Your task to perform on an android device: Open Google Image 0: 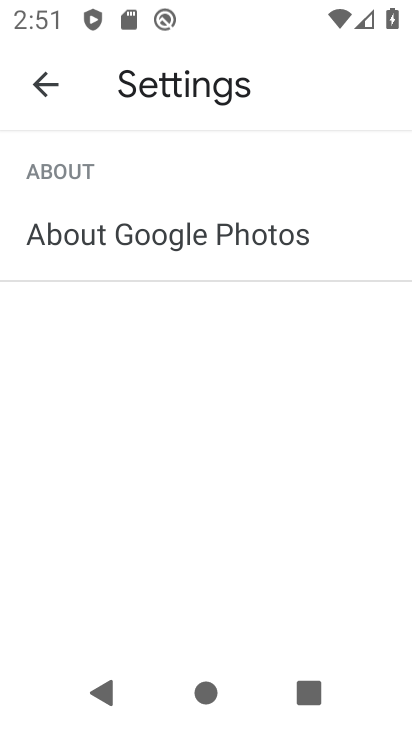
Step 0: press home button
Your task to perform on an android device: Open Google Image 1: 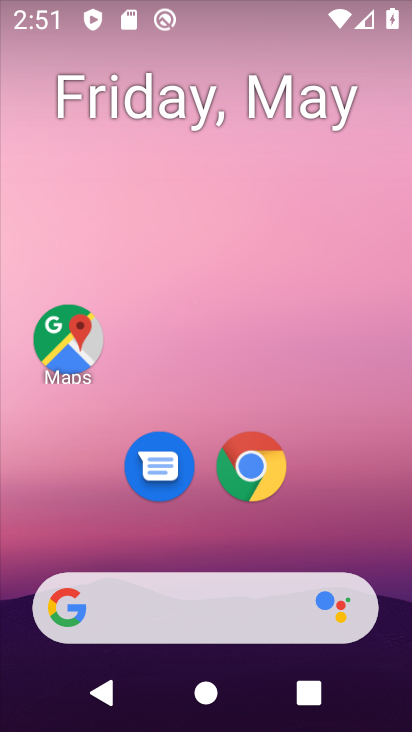
Step 1: click (234, 601)
Your task to perform on an android device: Open Google Image 2: 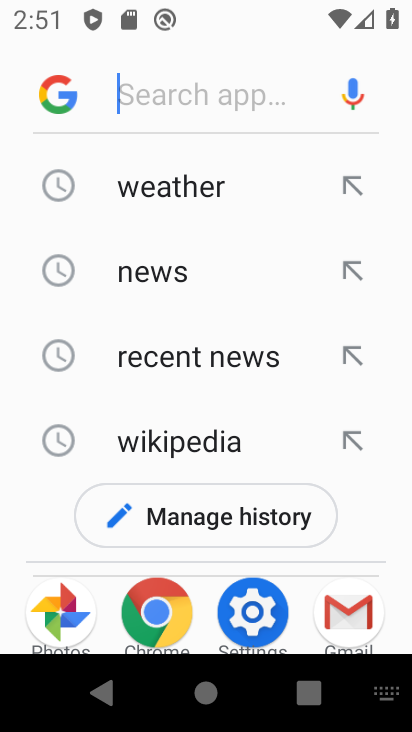
Step 2: type "google"
Your task to perform on an android device: Open Google Image 3: 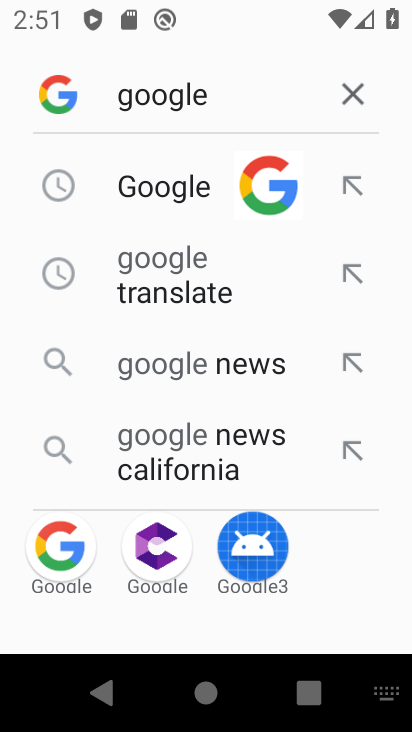
Step 3: click (138, 196)
Your task to perform on an android device: Open Google Image 4: 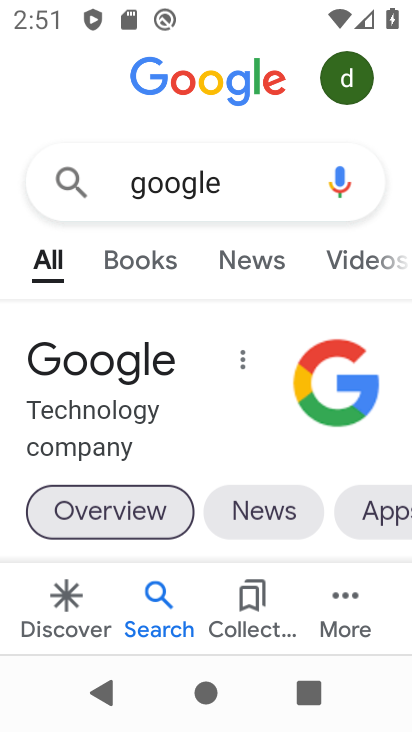
Step 4: drag from (200, 407) to (200, 38)
Your task to perform on an android device: Open Google Image 5: 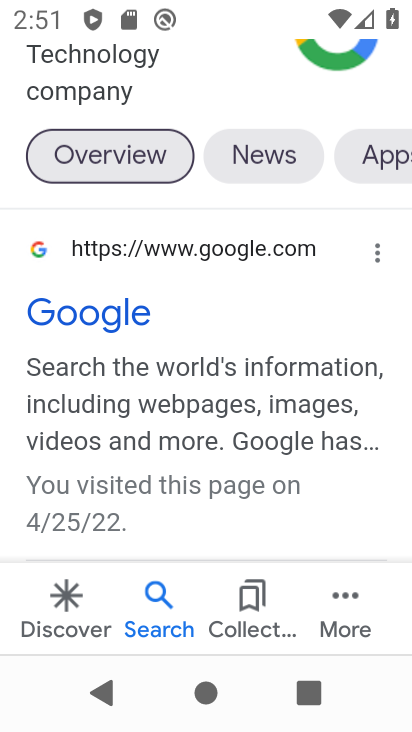
Step 5: click (119, 288)
Your task to perform on an android device: Open Google Image 6: 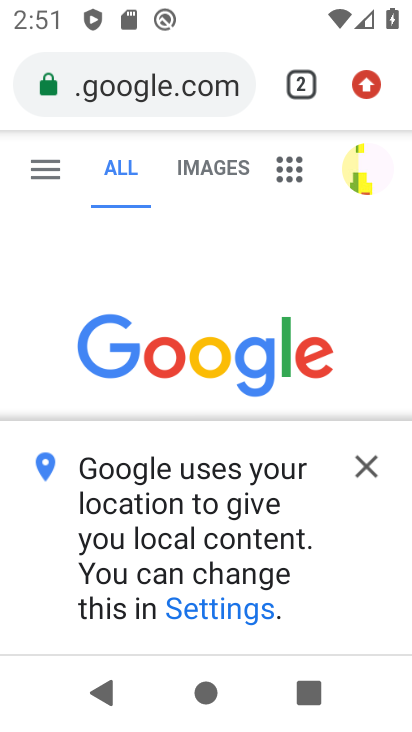
Step 6: task complete